Your task to perform on an android device: turn on showing notifications on the lock screen Image 0: 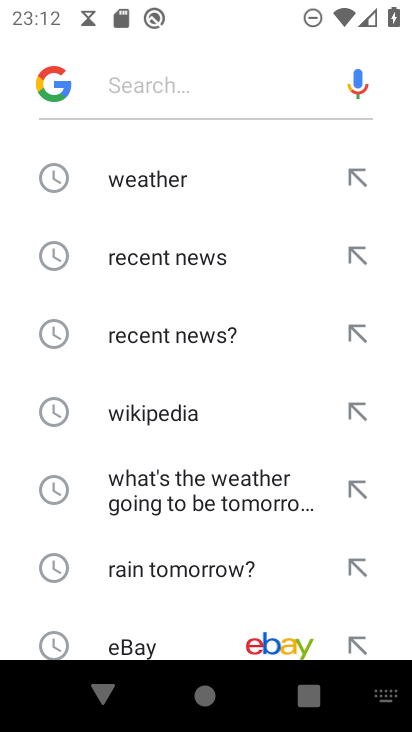
Step 0: press home button
Your task to perform on an android device: turn on showing notifications on the lock screen Image 1: 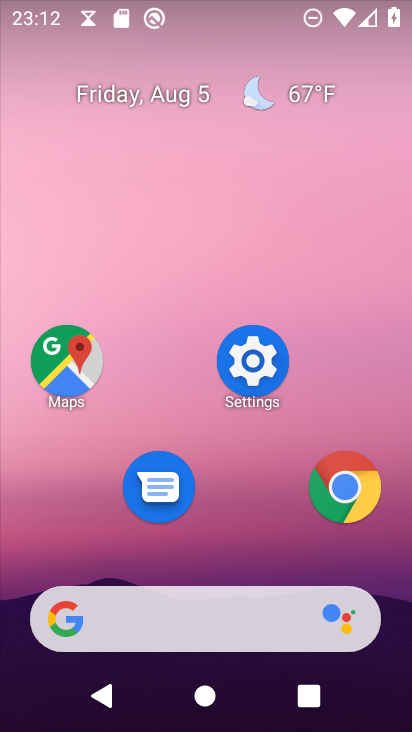
Step 1: click (254, 352)
Your task to perform on an android device: turn on showing notifications on the lock screen Image 2: 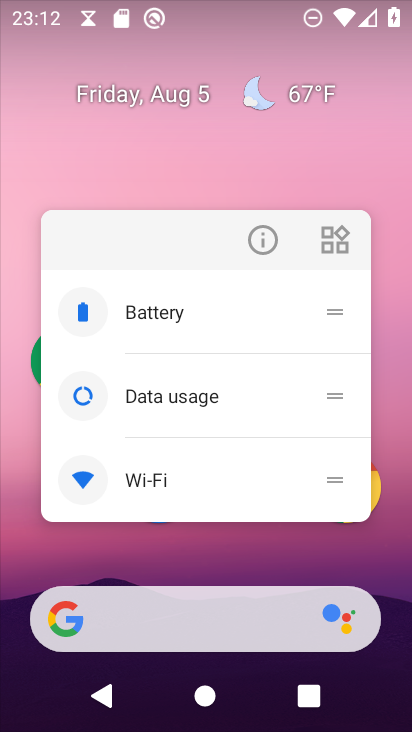
Step 2: click (381, 172)
Your task to perform on an android device: turn on showing notifications on the lock screen Image 3: 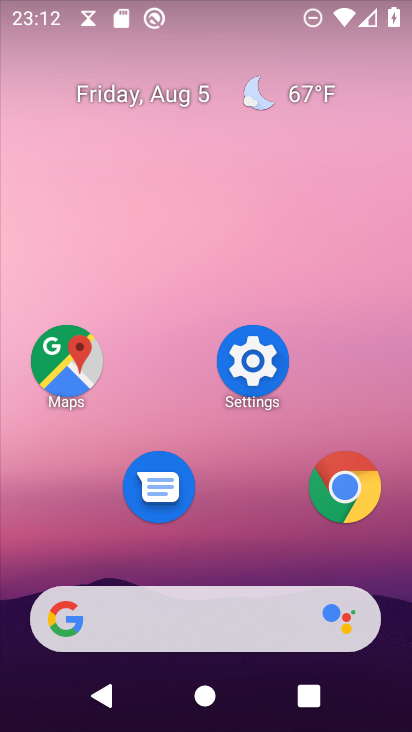
Step 3: click (255, 370)
Your task to perform on an android device: turn on showing notifications on the lock screen Image 4: 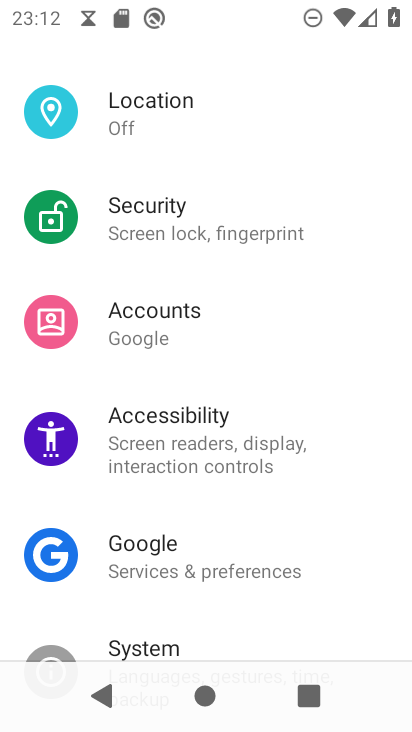
Step 4: drag from (288, 140) to (278, 599)
Your task to perform on an android device: turn on showing notifications on the lock screen Image 5: 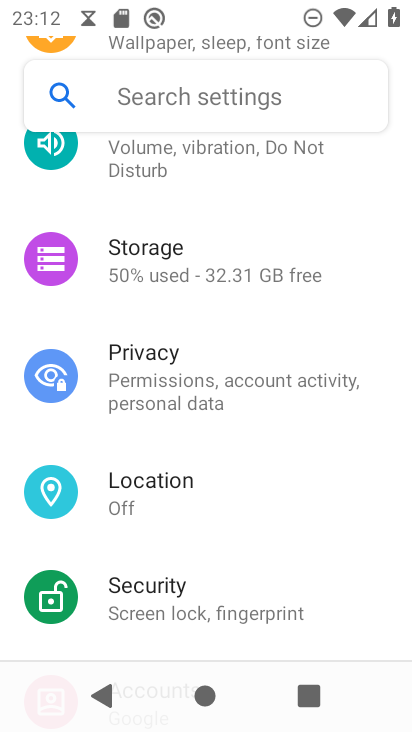
Step 5: drag from (308, 172) to (342, 563)
Your task to perform on an android device: turn on showing notifications on the lock screen Image 6: 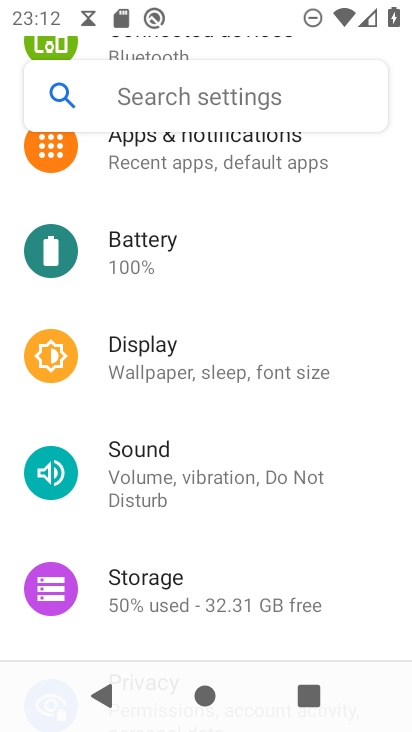
Step 6: drag from (278, 240) to (317, 558)
Your task to perform on an android device: turn on showing notifications on the lock screen Image 7: 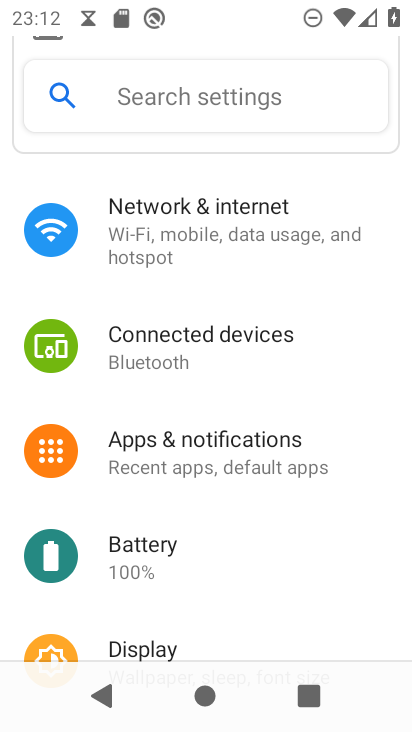
Step 7: click (234, 450)
Your task to perform on an android device: turn on showing notifications on the lock screen Image 8: 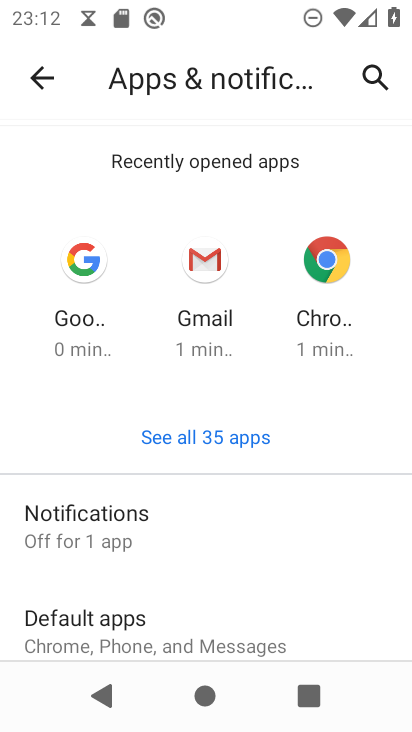
Step 8: click (77, 519)
Your task to perform on an android device: turn on showing notifications on the lock screen Image 9: 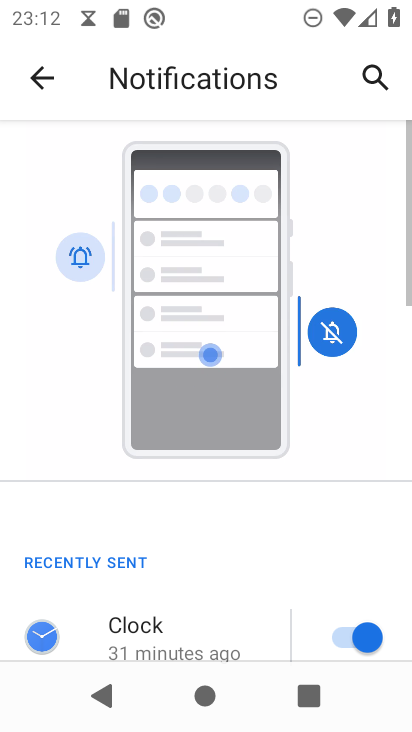
Step 9: drag from (231, 595) to (363, 140)
Your task to perform on an android device: turn on showing notifications on the lock screen Image 10: 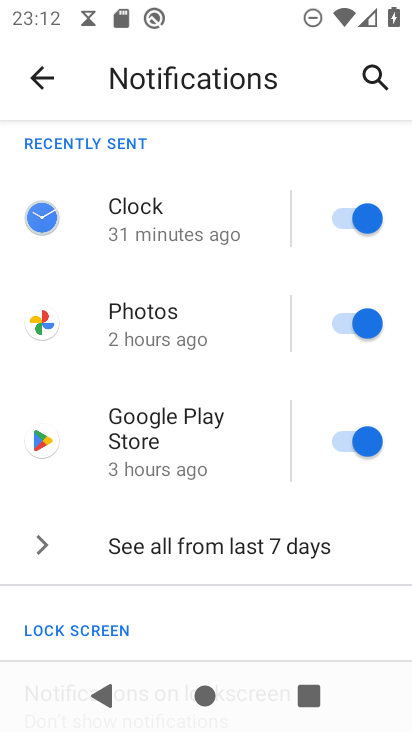
Step 10: drag from (262, 502) to (327, 217)
Your task to perform on an android device: turn on showing notifications on the lock screen Image 11: 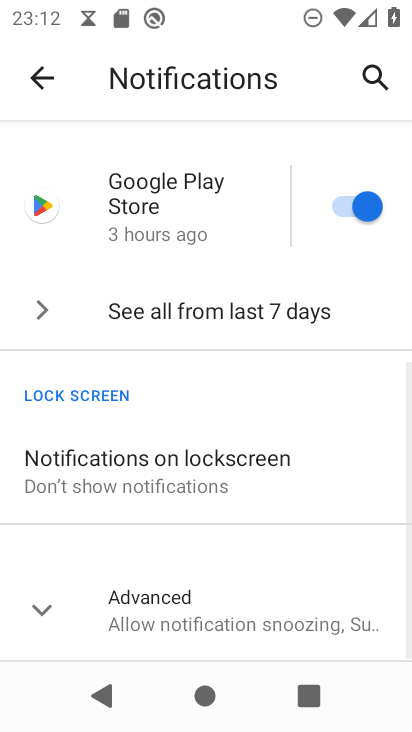
Step 11: click (202, 448)
Your task to perform on an android device: turn on showing notifications on the lock screen Image 12: 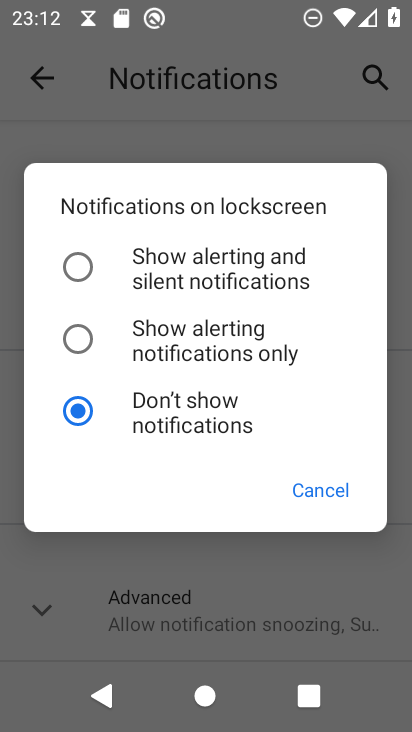
Step 12: click (81, 260)
Your task to perform on an android device: turn on showing notifications on the lock screen Image 13: 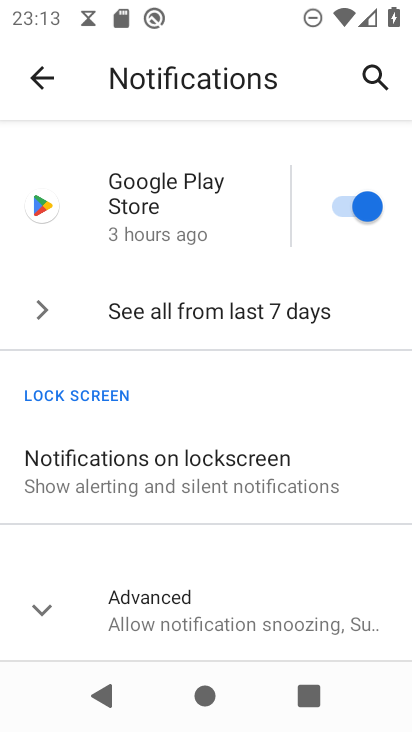
Step 13: task complete